Your task to perform on an android device: Open Yahoo.com Image 0: 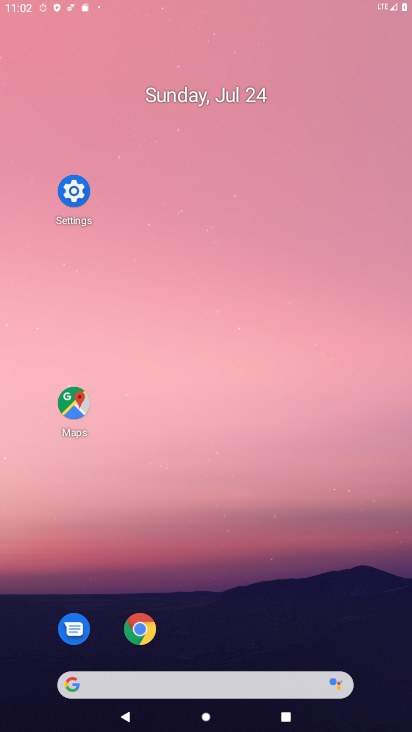
Step 0: drag from (292, 372) to (308, 132)
Your task to perform on an android device: Open Yahoo.com Image 1: 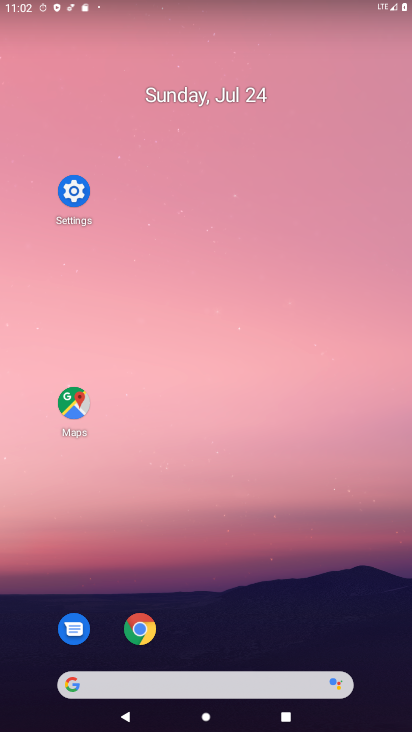
Step 1: drag from (300, 666) to (296, 56)
Your task to perform on an android device: Open Yahoo.com Image 2: 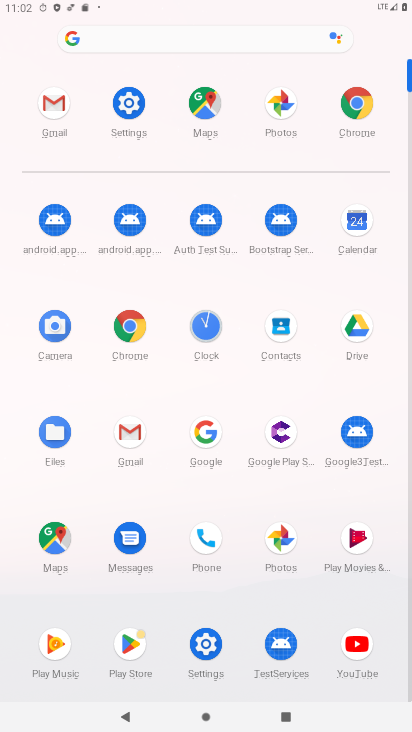
Step 2: click (343, 106)
Your task to perform on an android device: Open Yahoo.com Image 3: 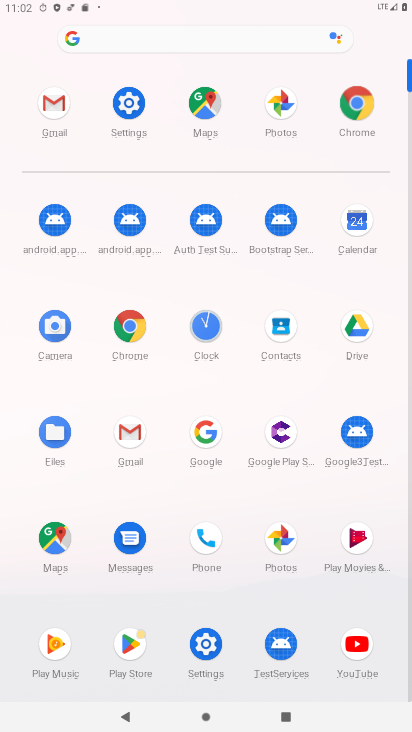
Step 3: click (368, 96)
Your task to perform on an android device: Open Yahoo.com Image 4: 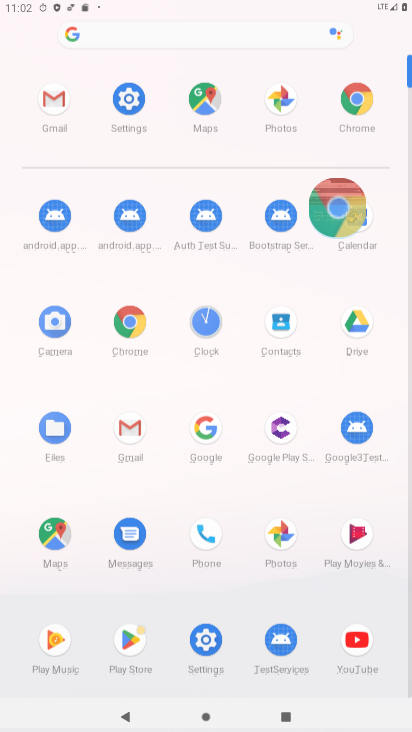
Step 4: click (367, 98)
Your task to perform on an android device: Open Yahoo.com Image 5: 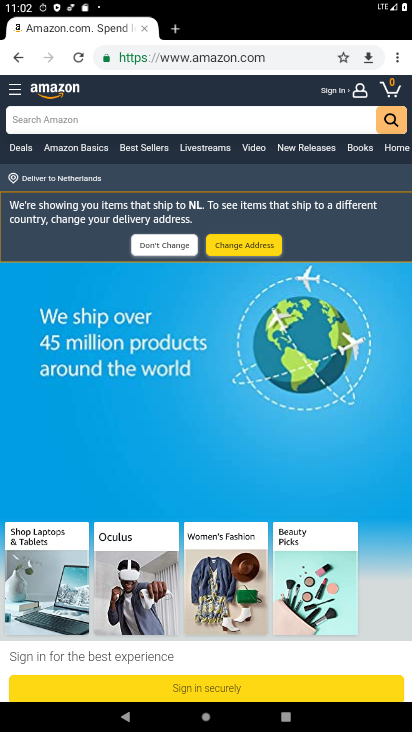
Step 5: drag from (397, 55) to (274, 62)
Your task to perform on an android device: Open Yahoo.com Image 6: 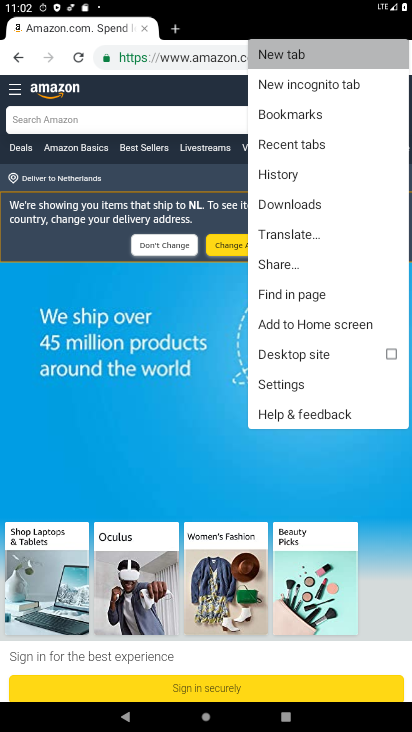
Step 6: click (285, 62)
Your task to perform on an android device: Open Yahoo.com Image 7: 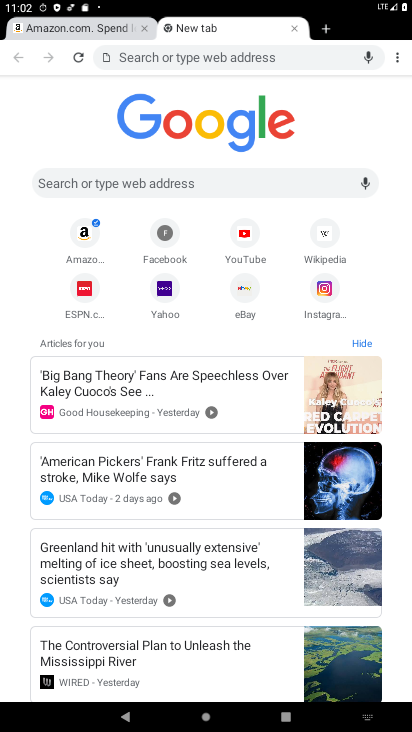
Step 7: click (144, 25)
Your task to perform on an android device: Open Yahoo.com Image 8: 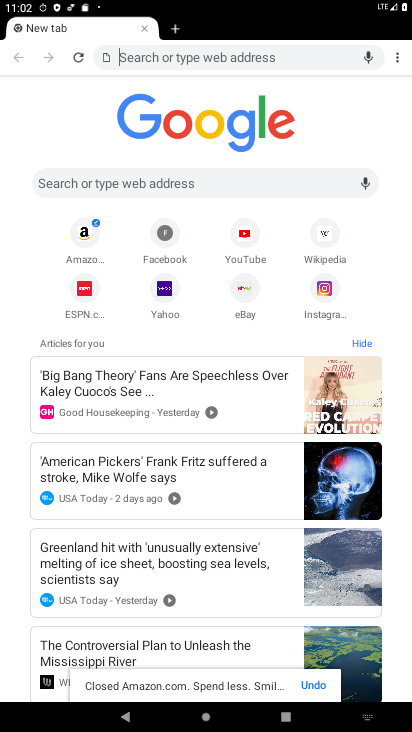
Step 8: click (173, 283)
Your task to perform on an android device: Open Yahoo.com Image 9: 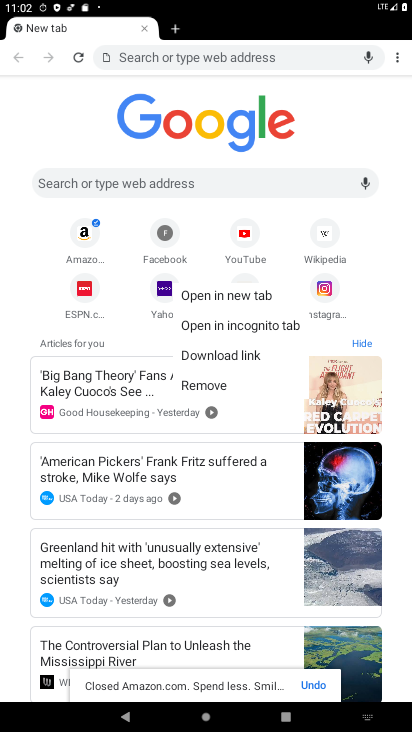
Step 9: click (170, 283)
Your task to perform on an android device: Open Yahoo.com Image 10: 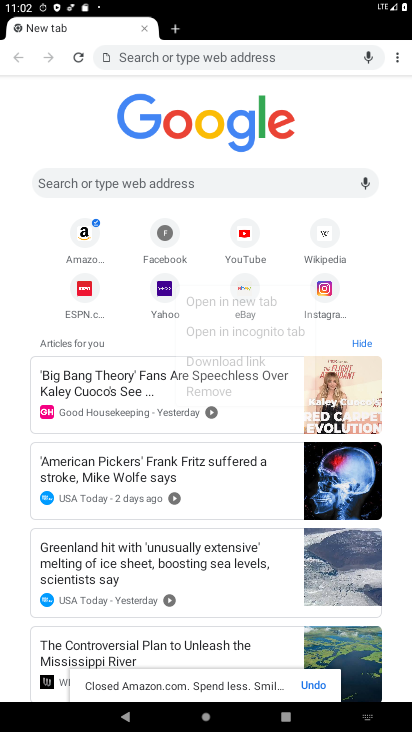
Step 10: click (163, 279)
Your task to perform on an android device: Open Yahoo.com Image 11: 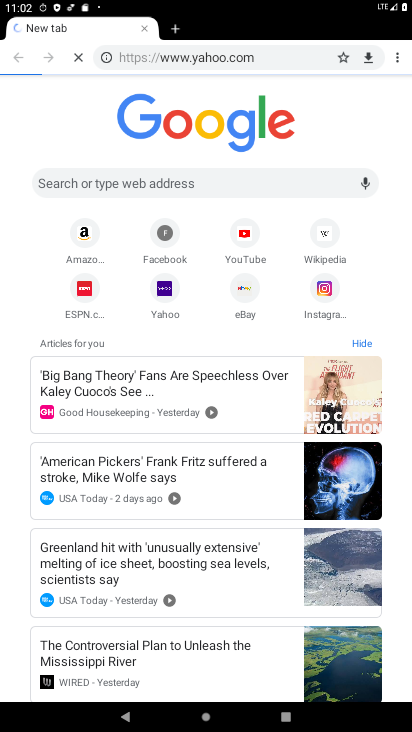
Step 11: click (169, 276)
Your task to perform on an android device: Open Yahoo.com Image 12: 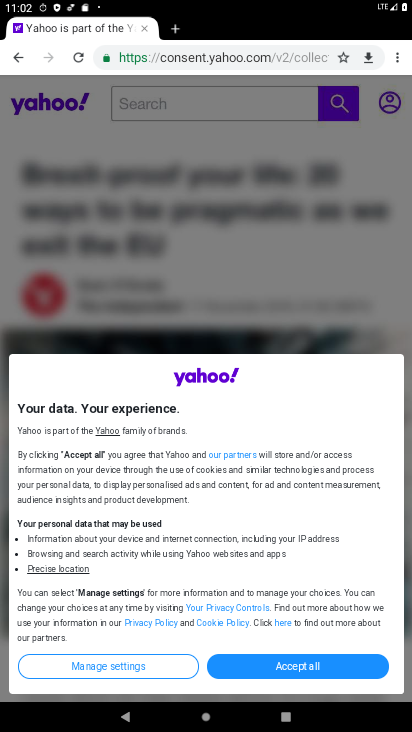
Step 12: click (177, 279)
Your task to perform on an android device: Open Yahoo.com Image 13: 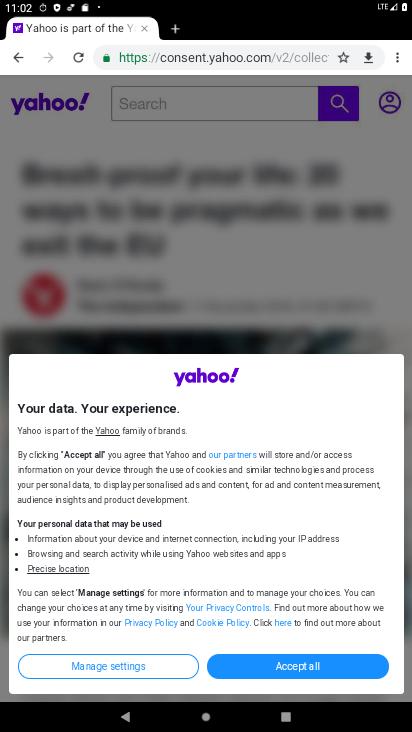
Step 13: task complete